Your task to perform on an android device: Open the web browser Image 0: 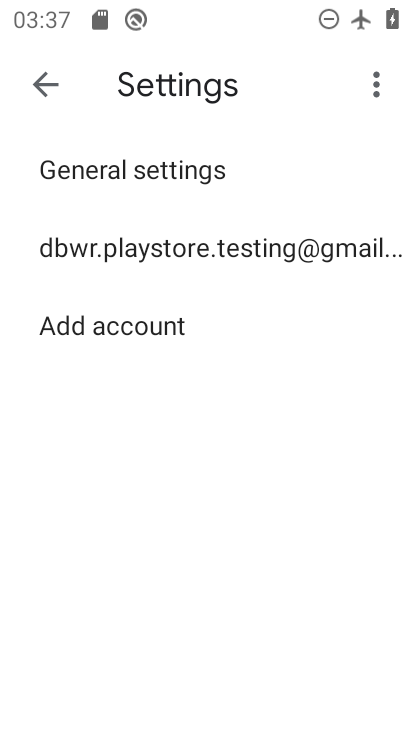
Step 0: press home button
Your task to perform on an android device: Open the web browser Image 1: 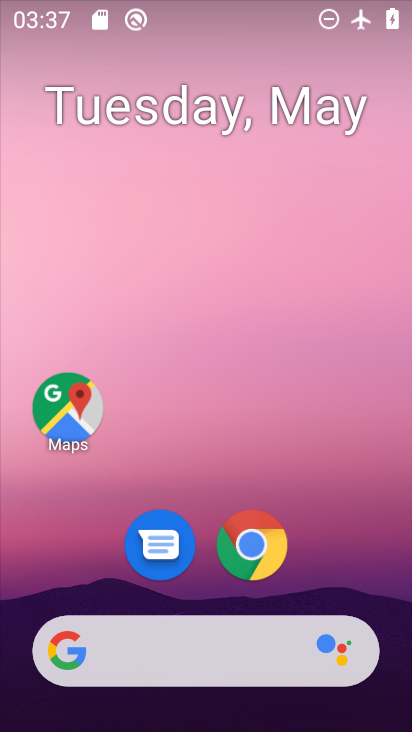
Step 1: click (250, 543)
Your task to perform on an android device: Open the web browser Image 2: 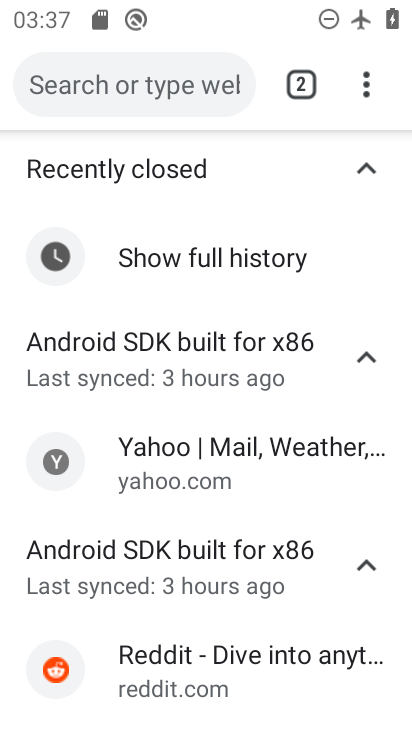
Step 2: task complete